Your task to perform on an android device: Show me productivity apps on the Play Store Image 0: 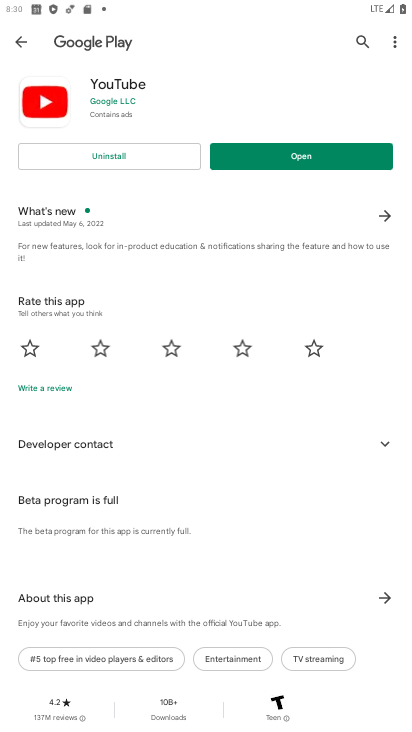
Step 0: press home button
Your task to perform on an android device: Show me productivity apps on the Play Store Image 1: 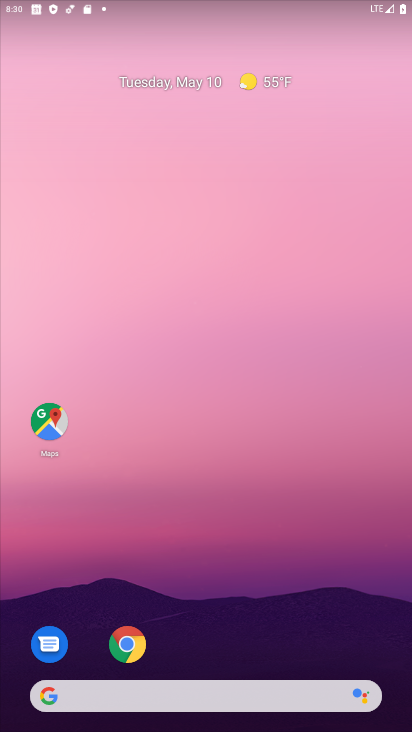
Step 1: drag from (218, 633) to (265, 258)
Your task to perform on an android device: Show me productivity apps on the Play Store Image 2: 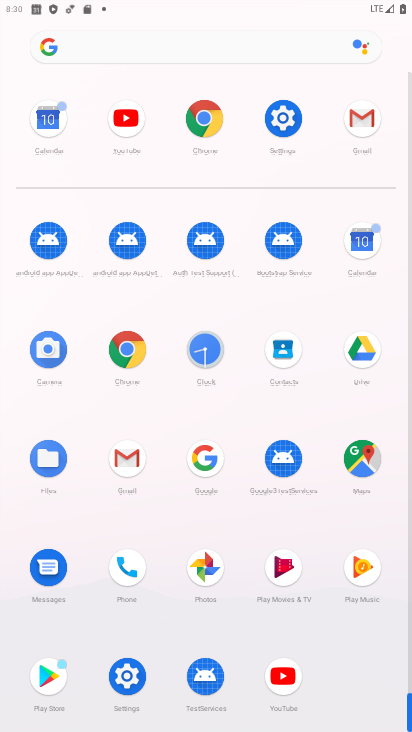
Step 2: click (51, 683)
Your task to perform on an android device: Show me productivity apps on the Play Store Image 3: 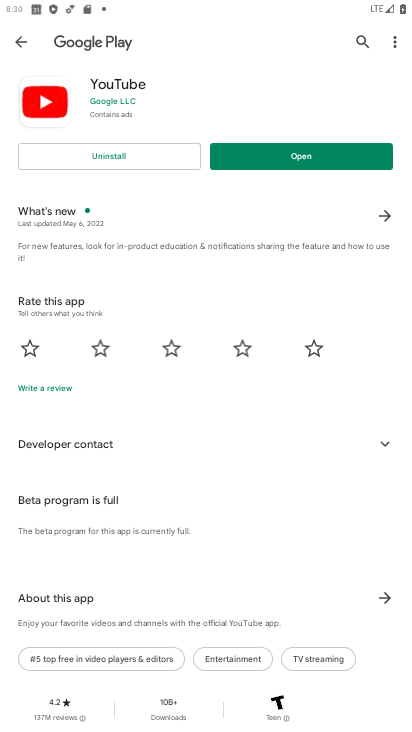
Step 3: click (12, 39)
Your task to perform on an android device: Show me productivity apps on the Play Store Image 4: 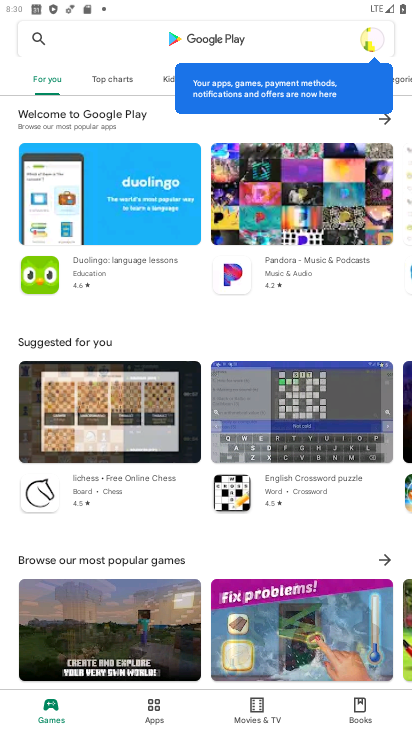
Step 4: click (152, 21)
Your task to perform on an android device: Show me productivity apps on the Play Store Image 5: 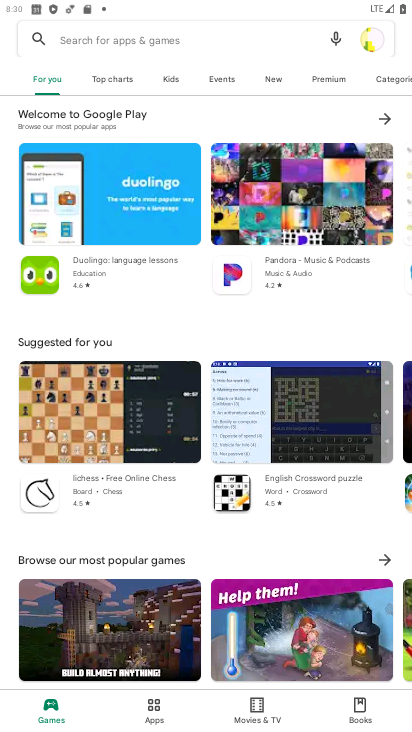
Step 5: click (158, 37)
Your task to perform on an android device: Show me productivity apps on the Play Store Image 6: 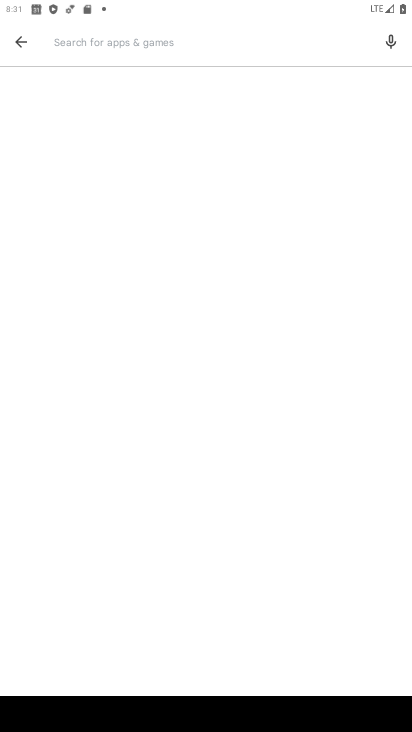
Step 6: type "productivity aaps"
Your task to perform on an android device: Show me productivity apps on the Play Store Image 7: 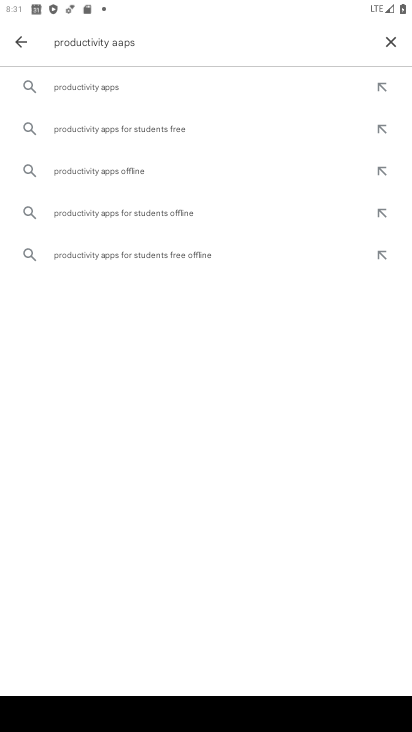
Step 7: click (250, 88)
Your task to perform on an android device: Show me productivity apps on the Play Store Image 8: 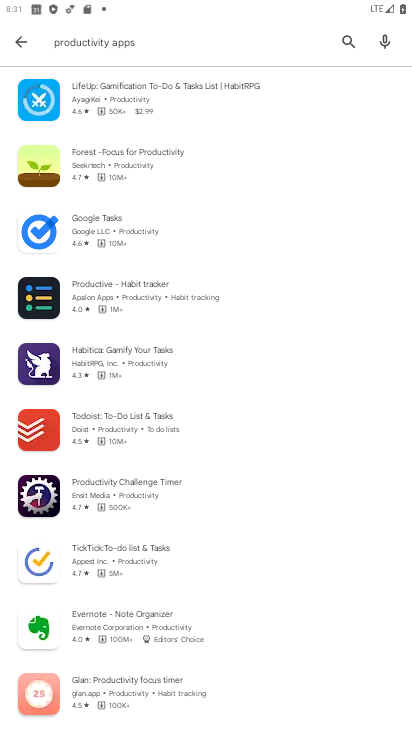
Step 8: task complete